Your task to perform on an android device: turn on priority inbox in the gmail app Image 0: 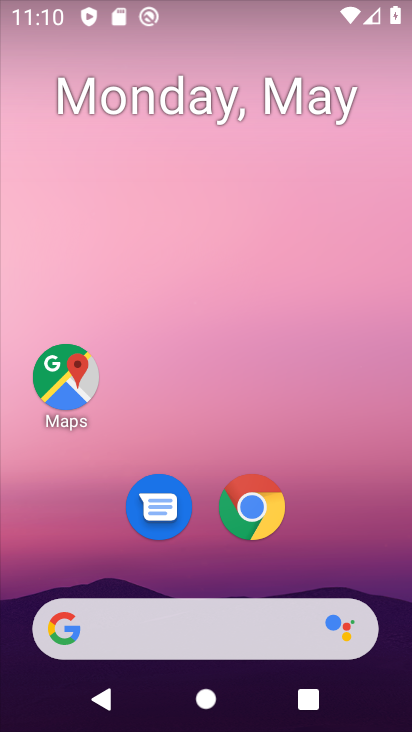
Step 0: drag from (354, 515) to (341, 293)
Your task to perform on an android device: turn on priority inbox in the gmail app Image 1: 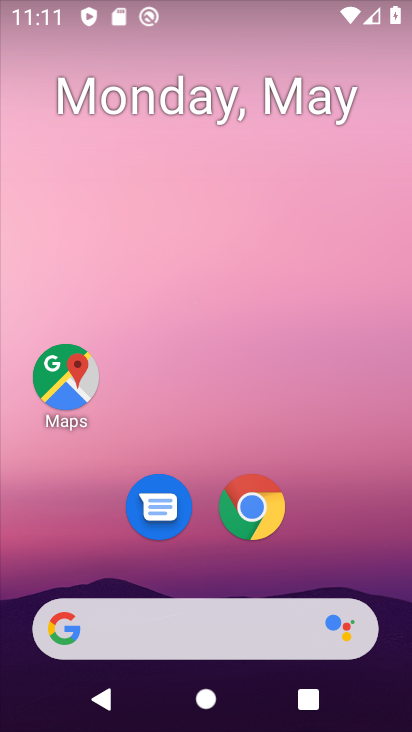
Step 1: drag from (351, 395) to (344, 274)
Your task to perform on an android device: turn on priority inbox in the gmail app Image 2: 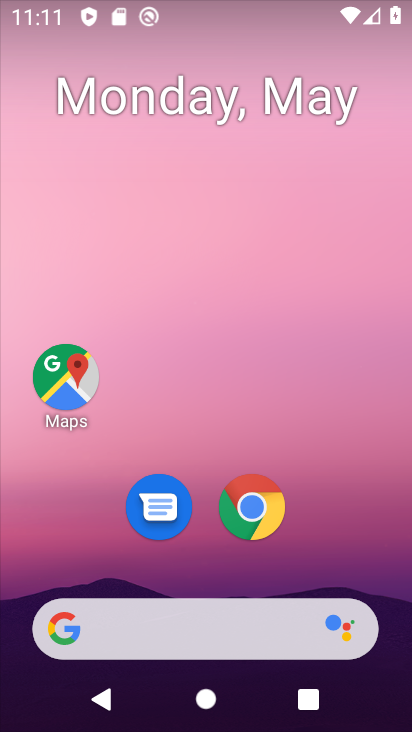
Step 2: click (320, 513)
Your task to perform on an android device: turn on priority inbox in the gmail app Image 3: 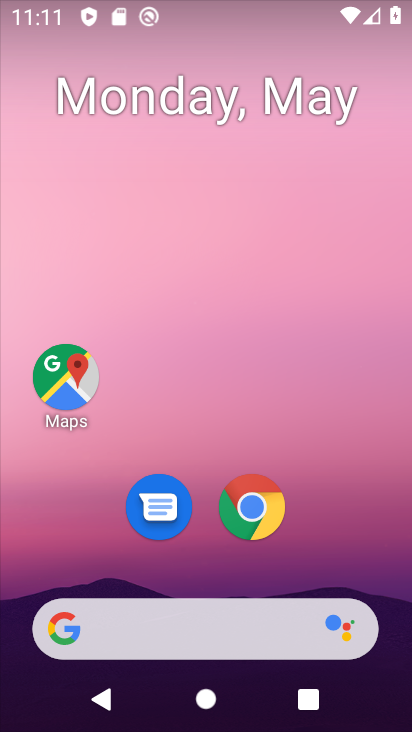
Step 3: drag from (291, 554) to (245, 115)
Your task to perform on an android device: turn on priority inbox in the gmail app Image 4: 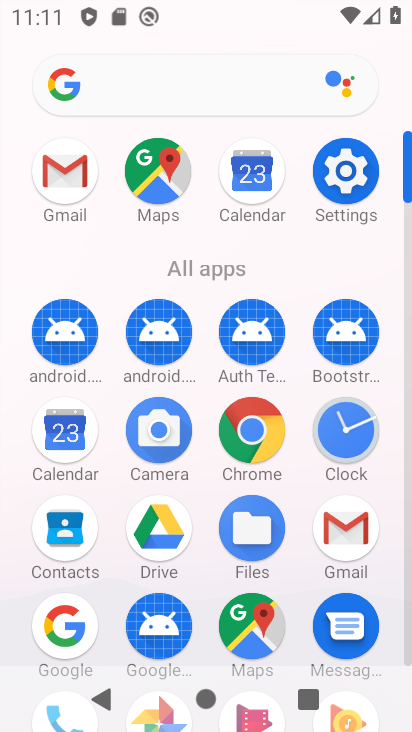
Step 4: click (342, 524)
Your task to perform on an android device: turn on priority inbox in the gmail app Image 5: 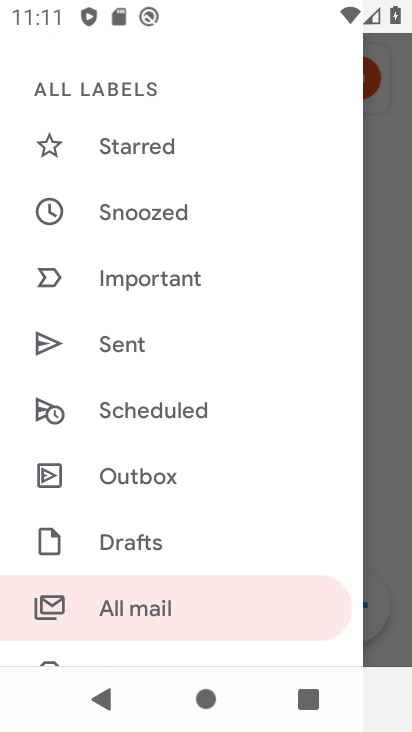
Step 5: drag from (197, 570) to (229, 169)
Your task to perform on an android device: turn on priority inbox in the gmail app Image 6: 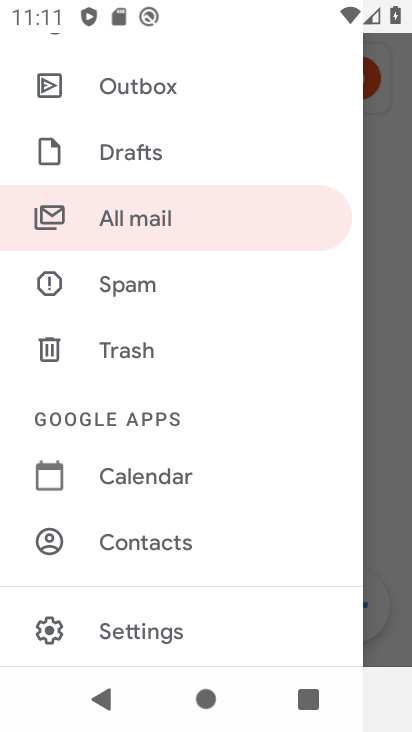
Step 6: click (155, 622)
Your task to perform on an android device: turn on priority inbox in the gmail app Image 7: 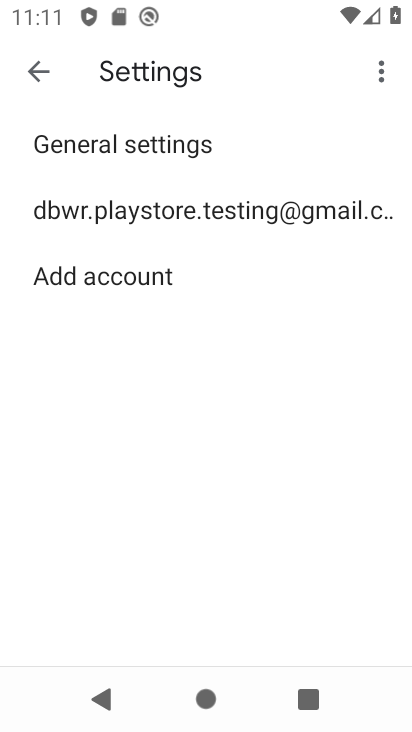
Step 7: click (173, 220)
Your task to perform on an android device: turn on priority inbox in the gmail app Image 8: 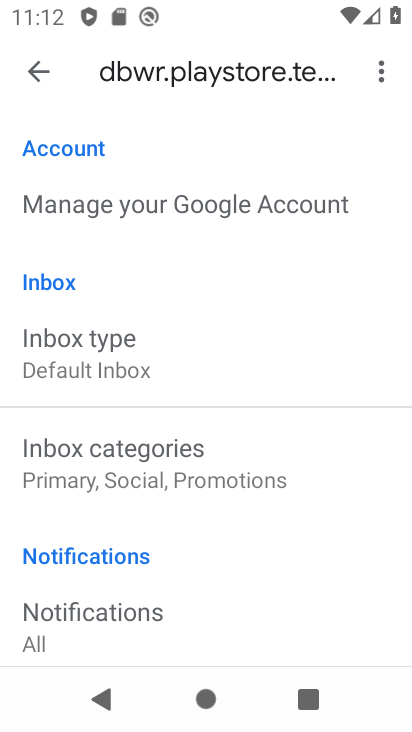
Step 8: click (124, 344)
Your task to perform on an android device: turn on priority inbox in the gmail app Image 9: 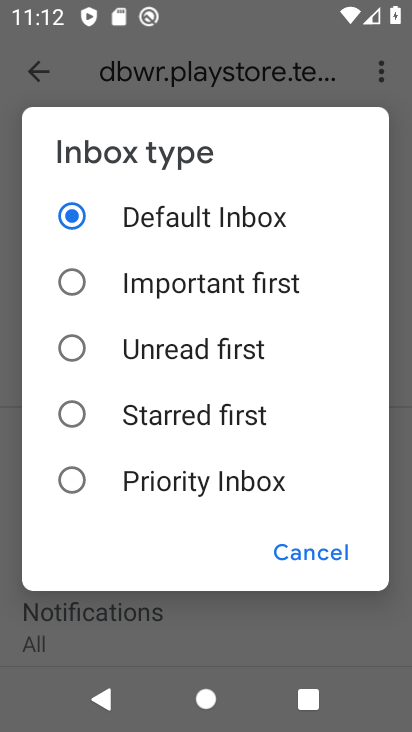
Step 9: click (170, 489)
Your task to perform on an android device: turn on priority inbox in the gmail app Image 10: 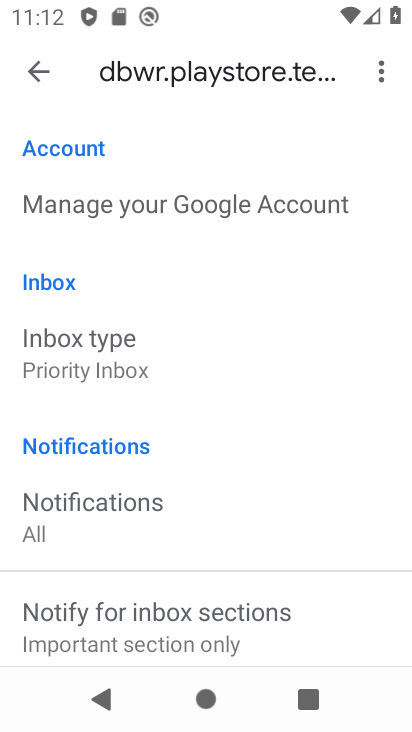
Step 10: task complete